Your task to perform on an android device: Open Wikipedia Image 0: 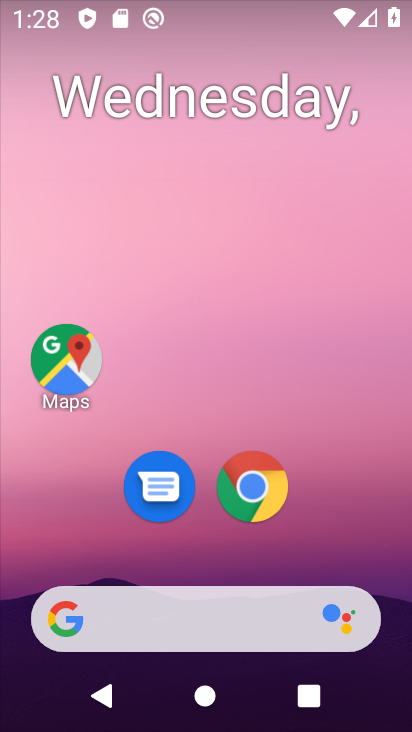
Step 0: drag from (238, 677) to (243, 256)
Your task to perform on an android device: Open Wikipedia Image 1: 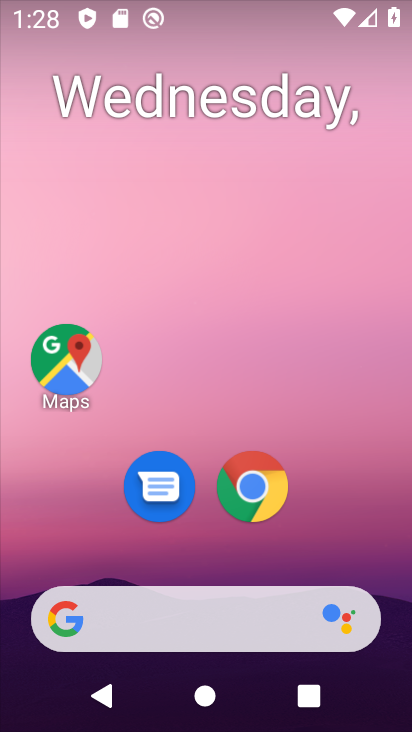
Step 1: click (158, 636)
Your task to perform on an android device: Open Wikipedia Image 2: 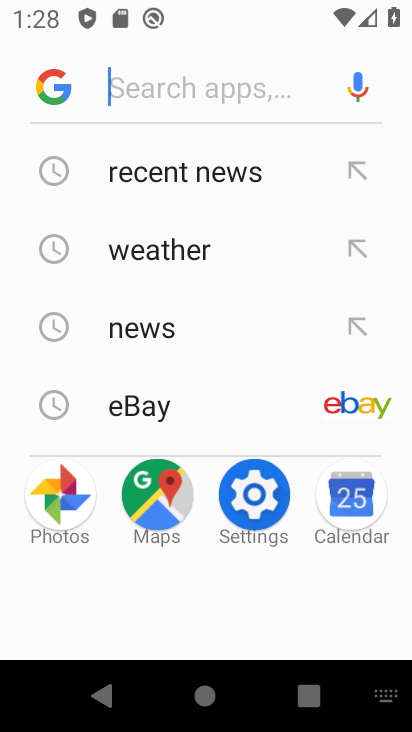
Step 2: type "wikipedia "
Your task to perform on an android device: Open Wikipedia Image 3: 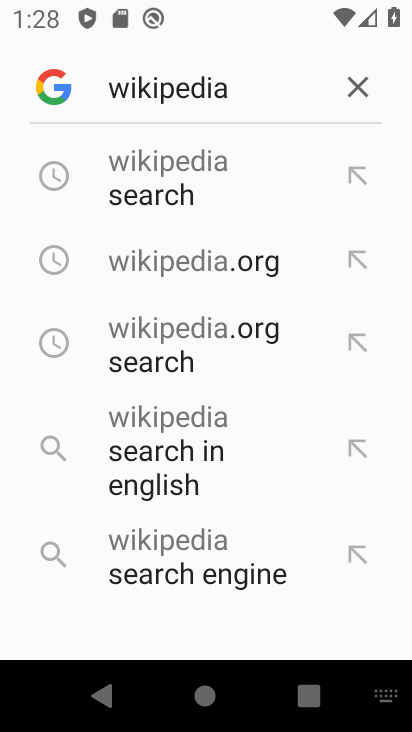
Step 3: click (268, 181)
Your task to perform on an android device: Open Wikipedia Image 4: 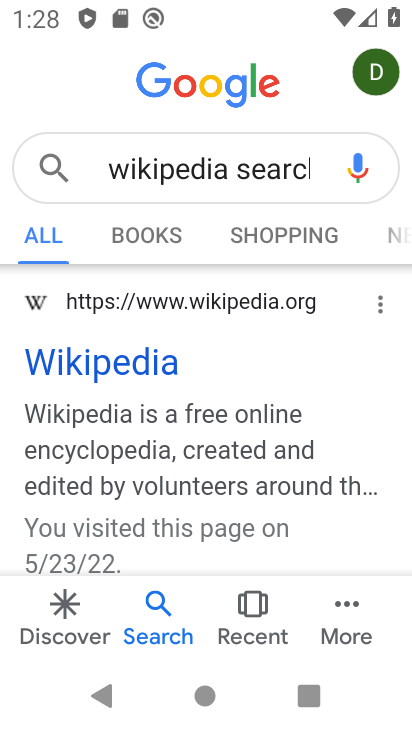
Step 4: click (43, 301)
Your task to perform on an android device: Open Wikipedia Image 5: 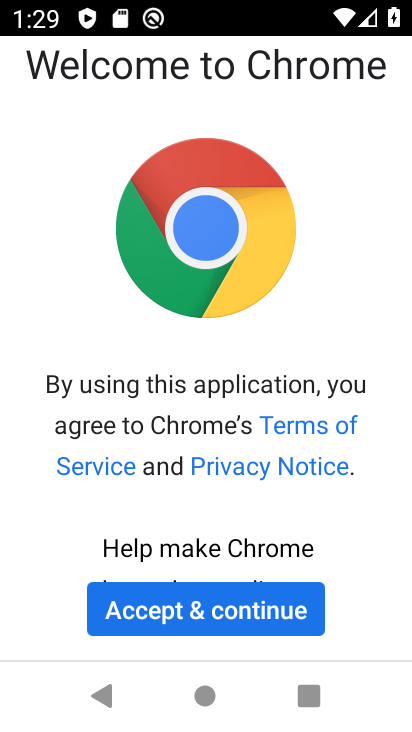
Step 5: click (234, 610)
Your task to perform on an android device: Open Wikipedia Image 6: 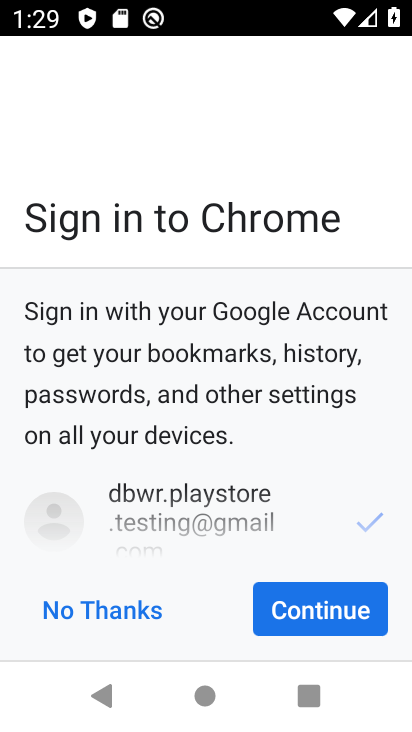
Step 6: click (311, 603)
Your task to perform on an android device: Open Wikipedia Image 7: 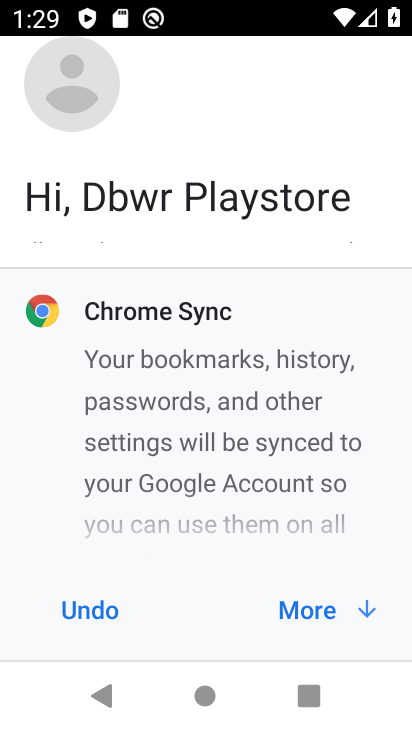
Step 7: click (311, 610)
Your task to perform on an android device: Open Wikipedia Image 8: 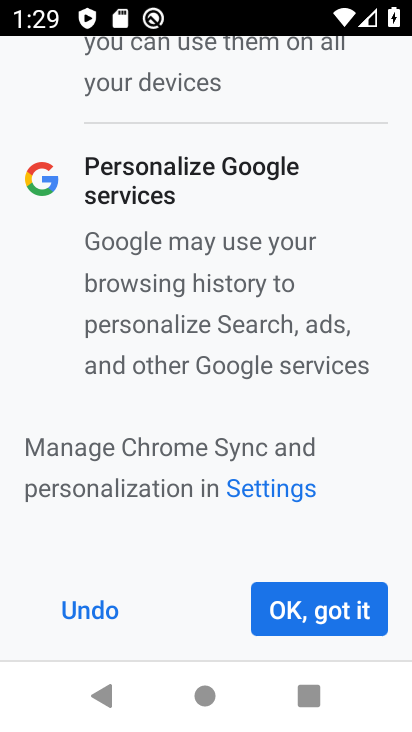
Step 8: click (311, 610)
Your task to perform on an android device: Open Wikipedia Image 9: 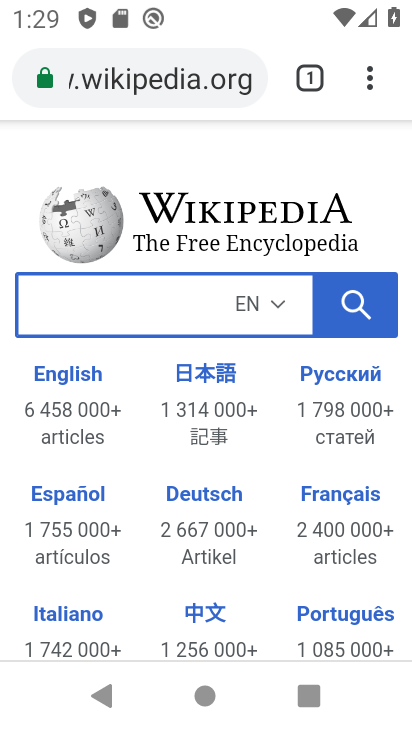
Step 9: task complete